Your task to perform on an android device: delete the emails in spam in the gmail app Image 0: 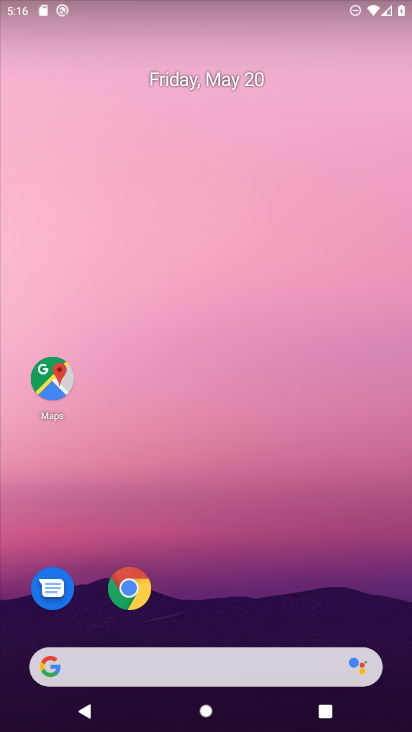
Step 0: drag from (204, 583) to (178, 214)
Your task to perform on an android device: delete the emails in spam in the gmail app Image 1: 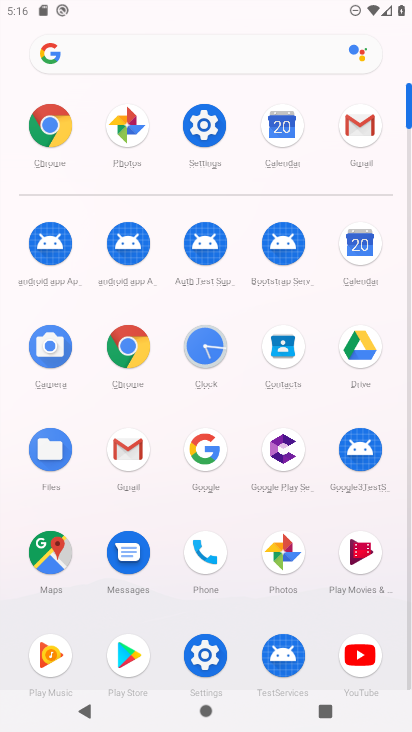
Step 1: click (361, 150)
Your task to perform on an android device: delete the emails in spam in the gmail app Image 2: 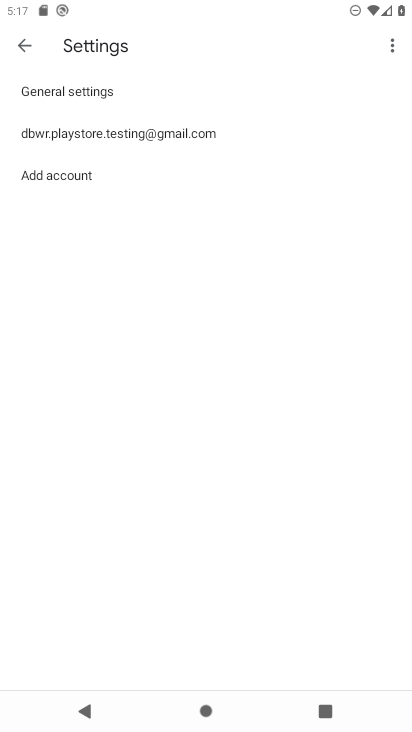
Step 2: click (118, 149)
Your task to perform on an android device: delete the emails in spam in the gmail app Image 3: 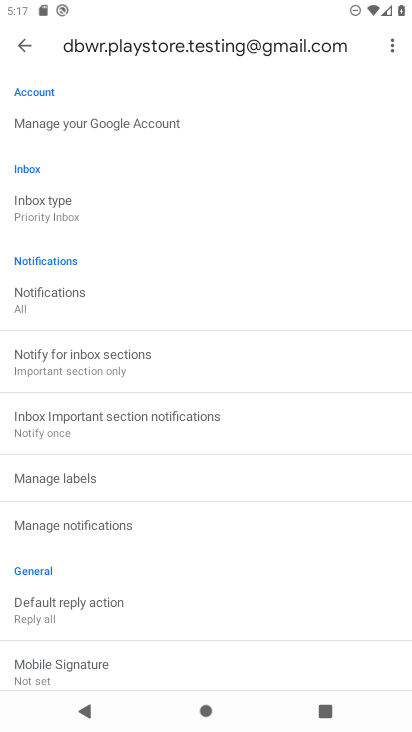
Step 3: click (22, 42)
Your task to perform on an android device: delete the emails in spam in the gmail app Image 4: 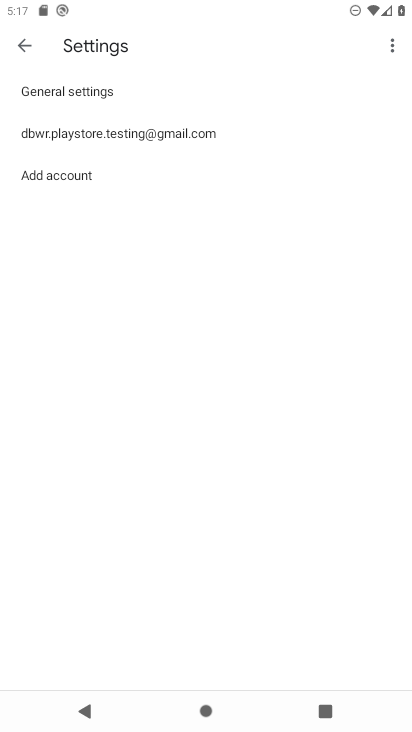
Step 4: click (22, 42)
Your task to perform on an android device: delete the emails in spam in the gmail app Image 5: 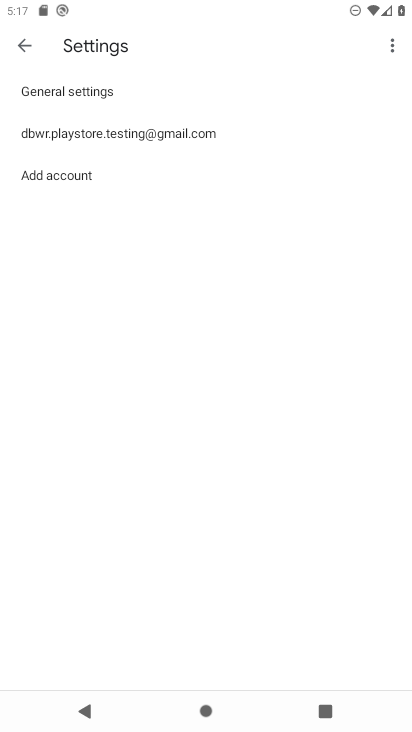
Step 5: click (22, 42)
Your task to perform on an android device: delete the emails in spam in the gmail app Image 6: 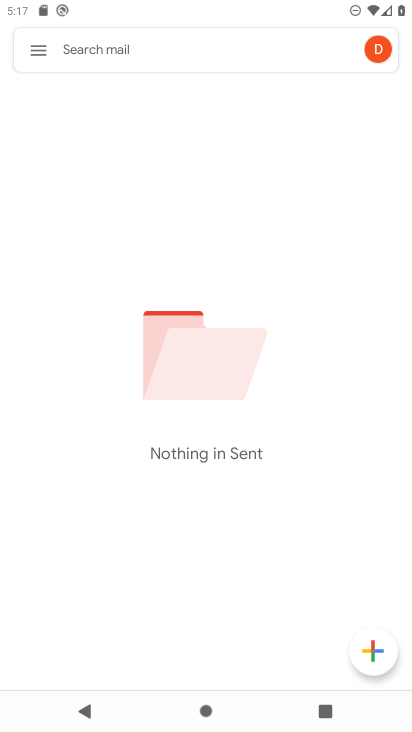
Step 6: click (29, 53)
Your task to perform on an android device: delete the emails in spam in the gmail app Image 7: 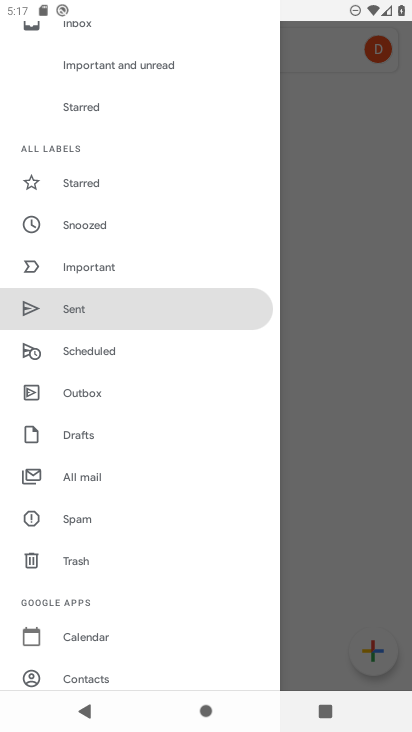
Step 7: click (67, 511)
Your task to perform on an android device: delete the emails in spam in the gmail app Image 8: 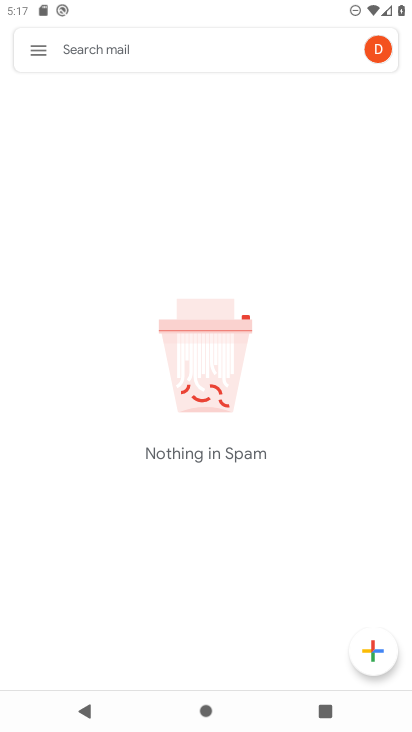
Step 8: task complete